Your task to perform on an android device: Go to calendar. Show me events next week Image 0: 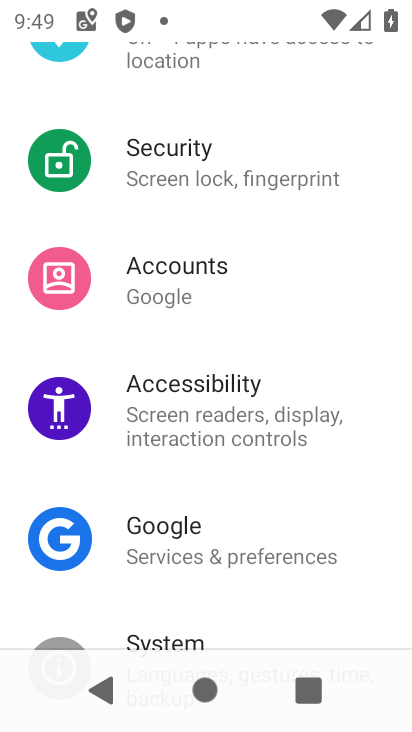
Step 0: press home button
Your task to perform on an android device: Go to calendar. Show me events next week Image 1: 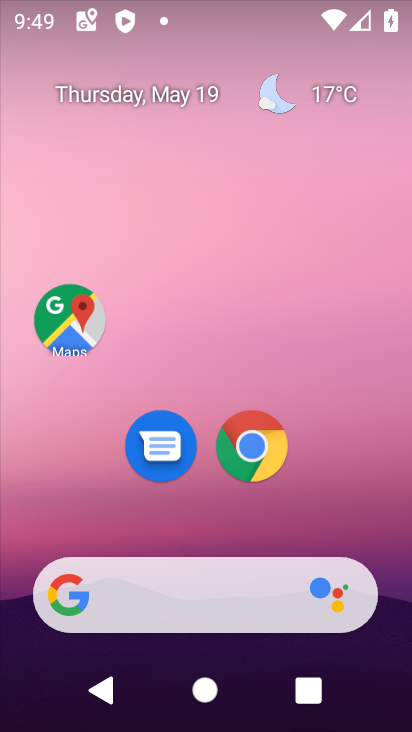
Step 1: drag from (198, 524) to (223, 31)
Your task to perform on an android device: Go to calendar. Show me events next week Image 2: 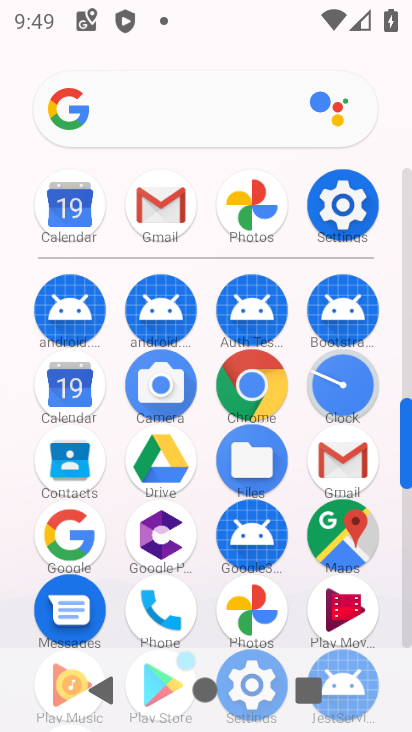
Step 2: click (71, 389)
Your task to perform on an android device: Go to calendar. Show me events next week Image 3: 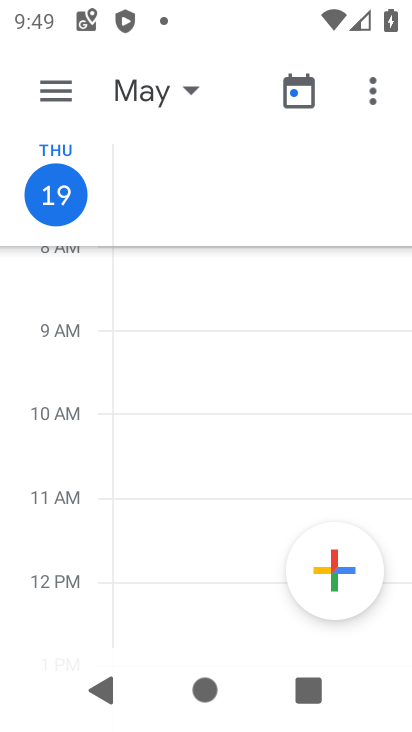
Step 3: click (59, 82)
Your task to perform on an android device: Go to calendar. Show me events next week Image 4: 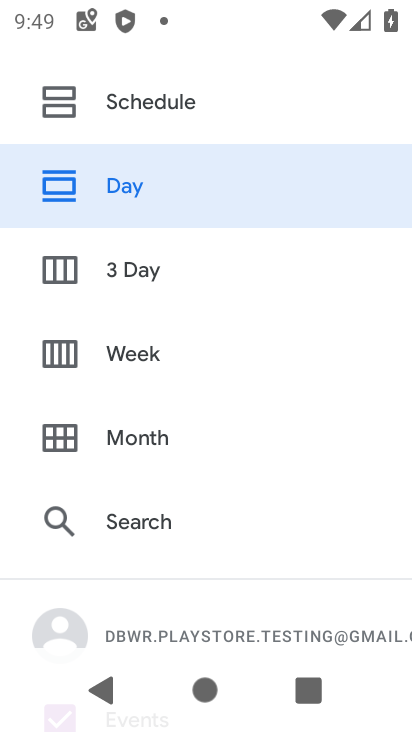
Step 4: click (126, 374)
Your task to perform on an android device: Go to calendar. Show me events next week Image 5: 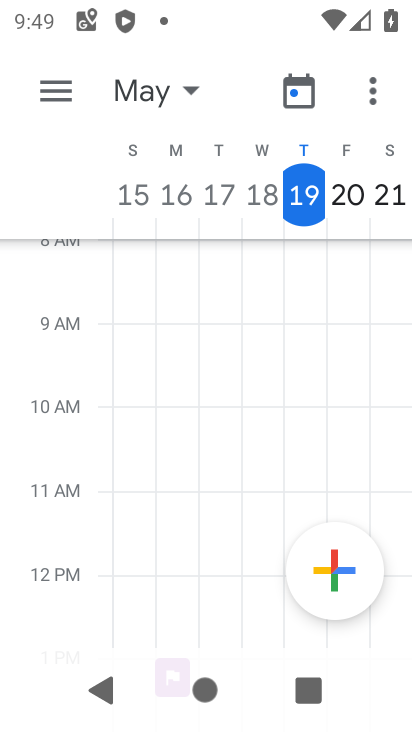
Step 5: task complete